Your task to perform on an android device: read, delete, or share a saved page in the chrome app Image 0: 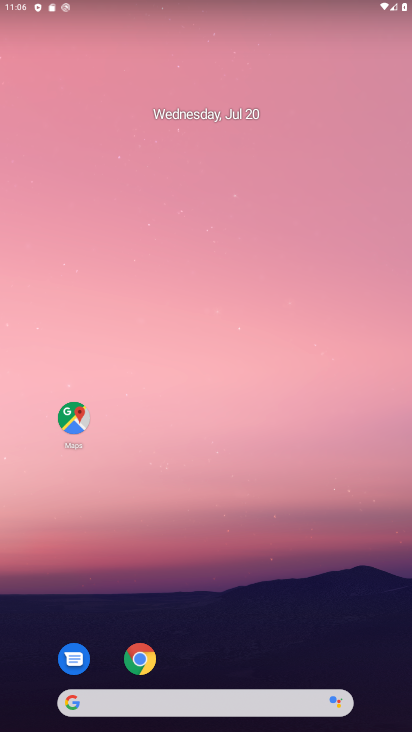
Step 0: click (128, 650)
Your task to perform on an android device: read, delete, or share a saved page in the chrome app Image 1: 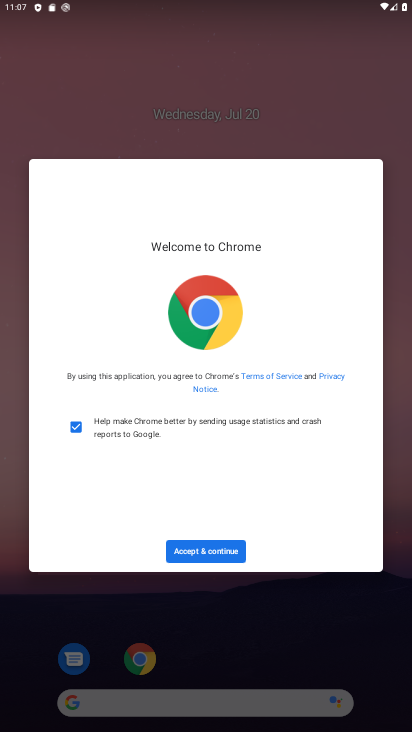
Step 1: click (220, 545)
Your task to perform on an android device: read, delete, or share a saved page in the chrome app Image 2: 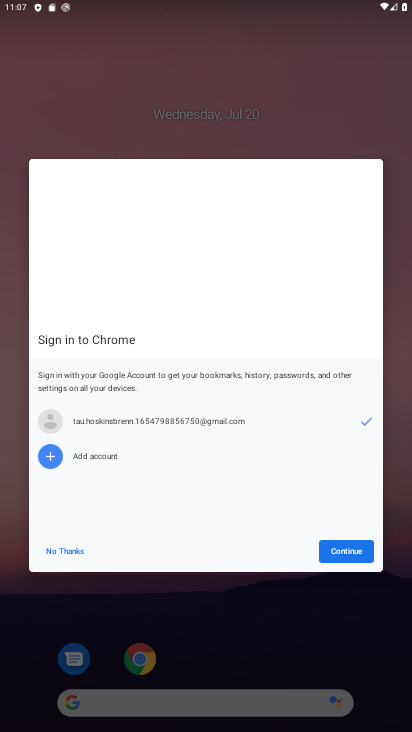
Step 2: click (363, 553)
Your task to perform on an android device: read, delete, or share a saved page in the chrome app Image 3: 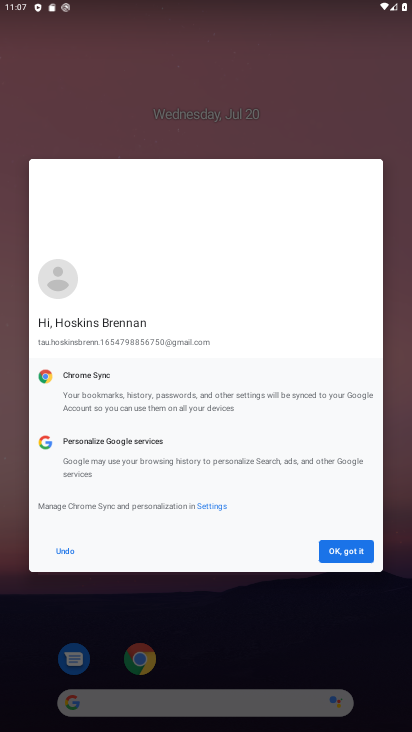
Step 3: click (326, 545)
Your task to perform on an android device: read, delete, or share a saved page in the chrome app Image 4: 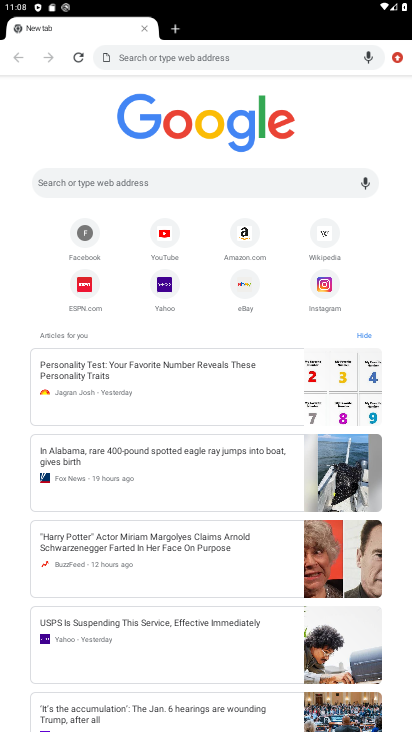
Step 4: task complete